Your task to perform on an android device: Open ESPN.com Image 0: 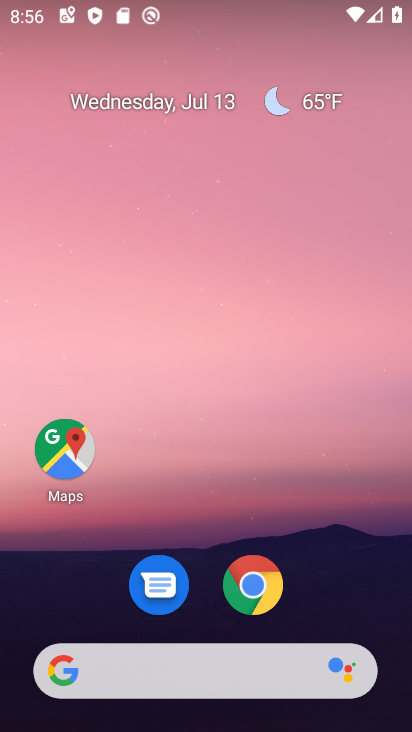
Step 0: drag from (220, 488) to (218, 20)
Your task to perform on an android device: Open ESPN.com Image 1: 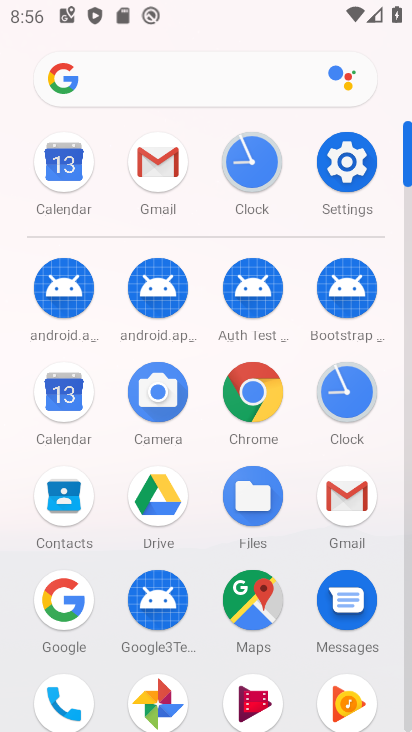
Step 1: click (259, 75)
Your task to perform on an android device: Open ESPN.com Image 2: 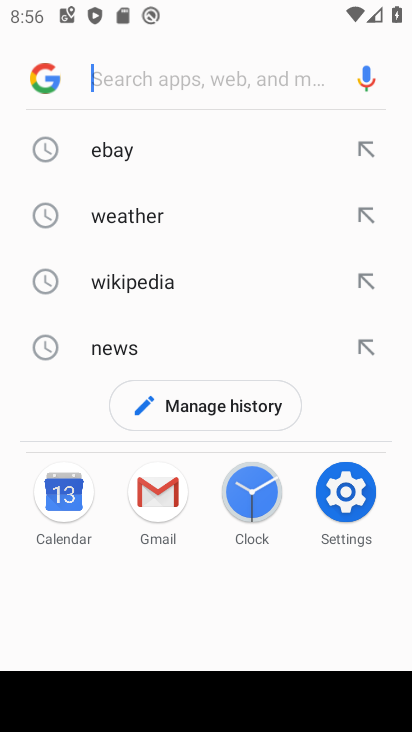
Step 2: type "espn.com"
Your task to perform on an android device: Open ESPN.com Image 3: 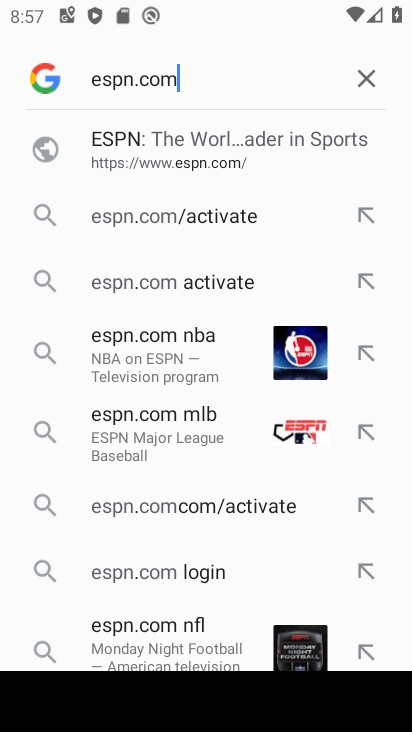
Step 3: click (164, 143)
Your task to perform on an android device: Open ESPN.com Image 4: 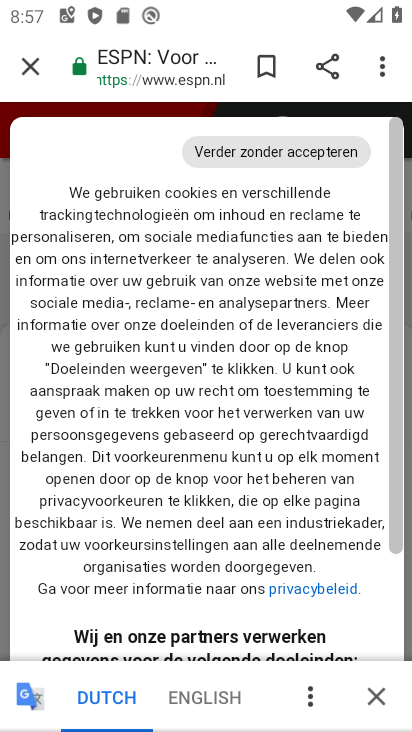
Step 4: click (248, 150)
Your task to perform on an android device: Open ESPN.com Image 5: 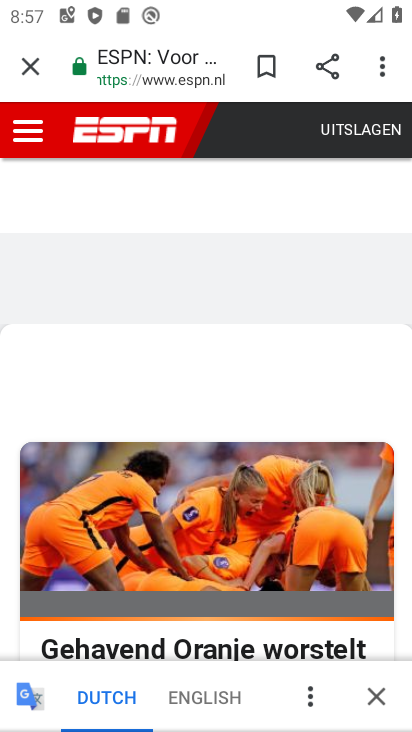
Step 5: task complete